Your task to perform on an android device: Open Google Maps and go to "Timeline" Image 0: 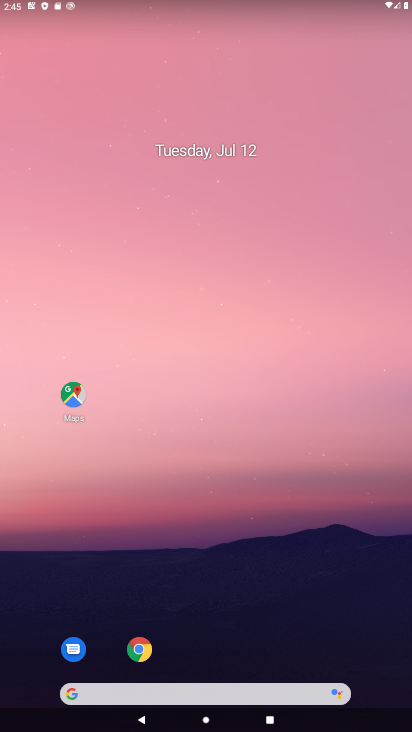
Step 0: click (78, 404)
Your task to perform on an android device: Open Google Maps and go to "Timeline" Image 1: 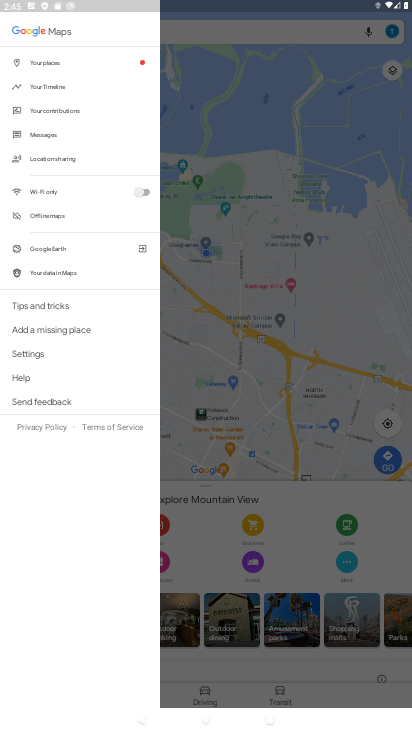
Step 1: click (46, 90)
Your task to perform on an android device: Open Google Maps and go to "Timeline" Image 2: 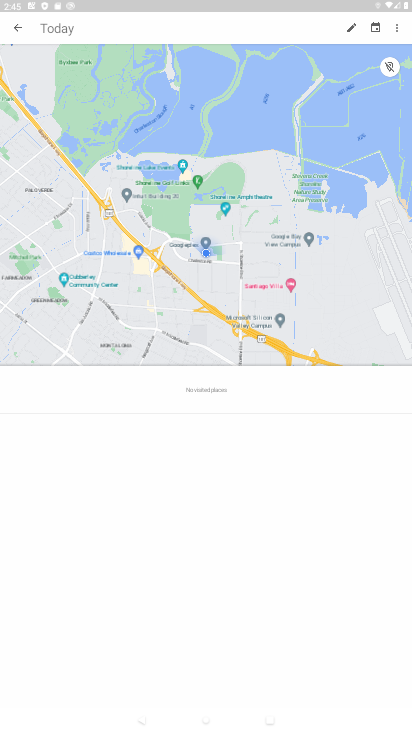
Step 2: task complete